Your task to perform on an android device: turn smart compose on in the gmail app Image 0: 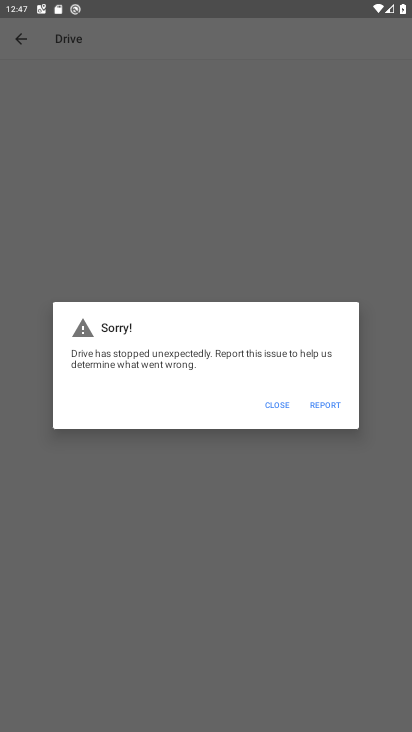
Step 0: press home button
Your task to perform on an android device: turn smart compose on in the gmail app Image 1: 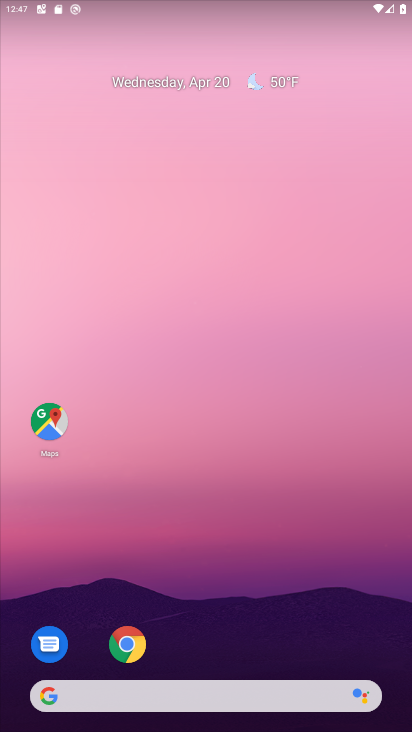
Step 1: drag from (215, 619) to (218, 89)
Your task to perform on an android device: turn smart compose on in the gmail app Image 2: 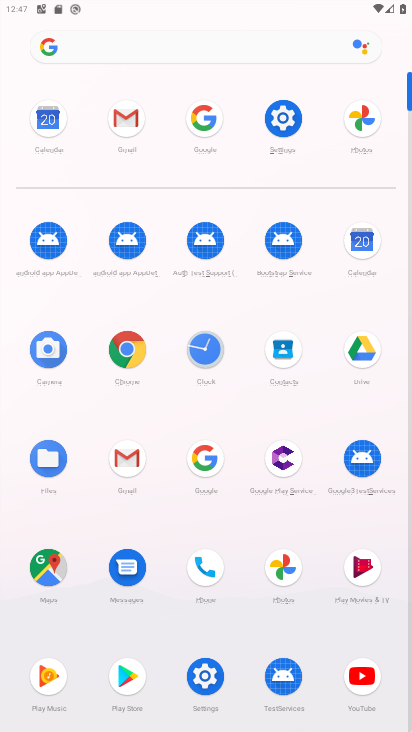
Step 2: click (123, 121)
Your task to perform on an android device: turn smart compose on in the gmail app Image 3: 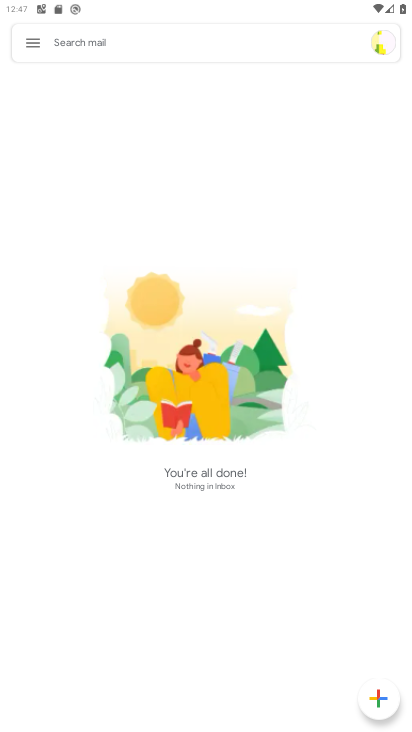
Step 3: click (27, 33)
Your task to perform on an android device: turn smart compose on in the gmail app Image 4: 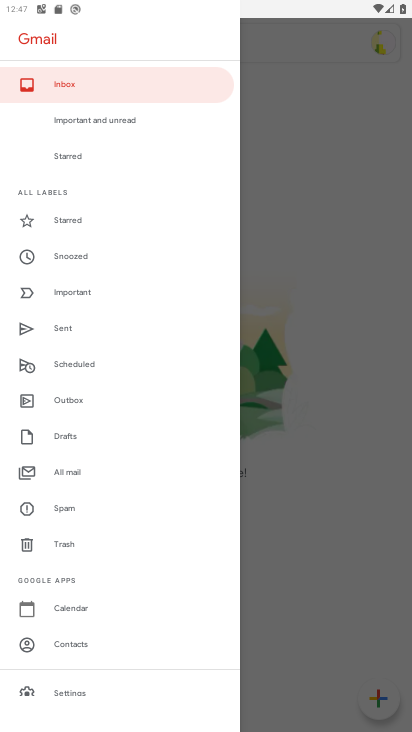
Step 4: drag from (116, 639) to (145, 327)
Your task to perform on an android device: turn smart compose on in the gmail app Image 5: 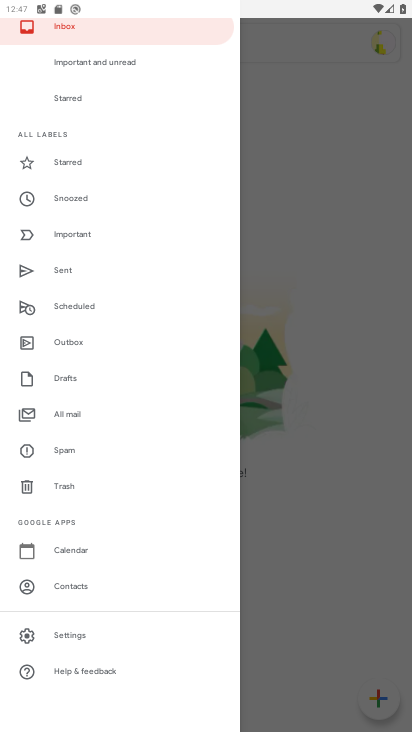
Step 5: click (89, 637)
Your task to perform on an android device: turn smart compose on in the gmail app Image 6: 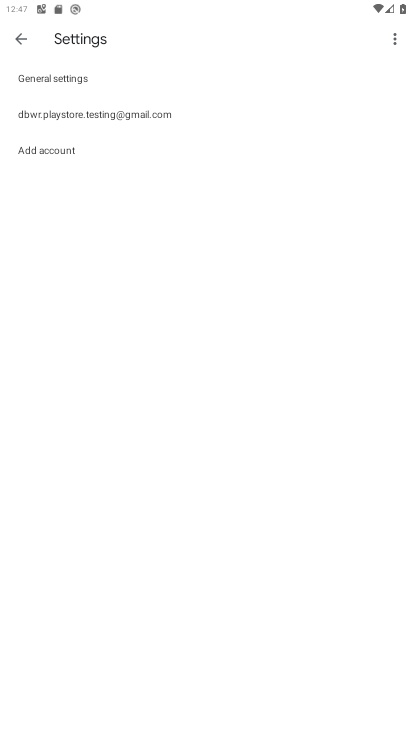
Step 6: click (106, 113)
Your task to perform on an android device: turn smart compose on in the gmail app Image 7: 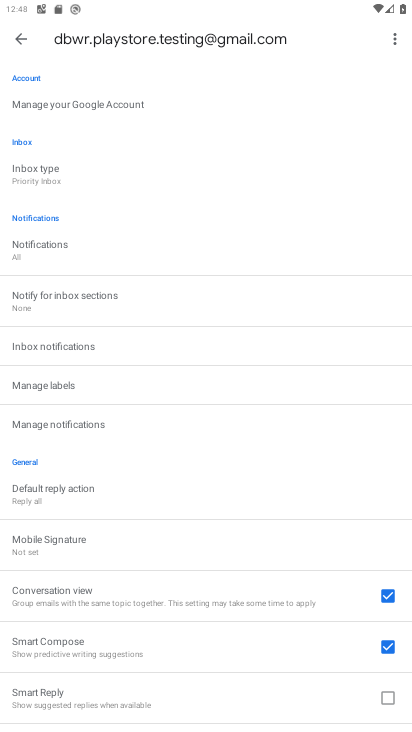
Step 7: task complete